Your task to perform on an android device: Open the stopwatch Image 0: 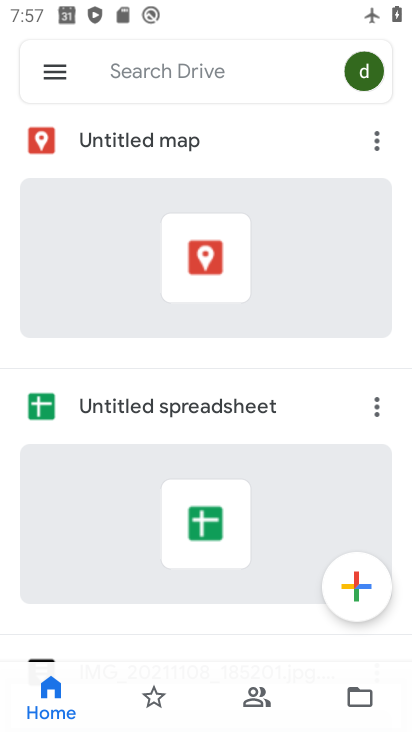
Step 0: press back button
Your task to perform on an android device: Open the stopwatch Image 1: 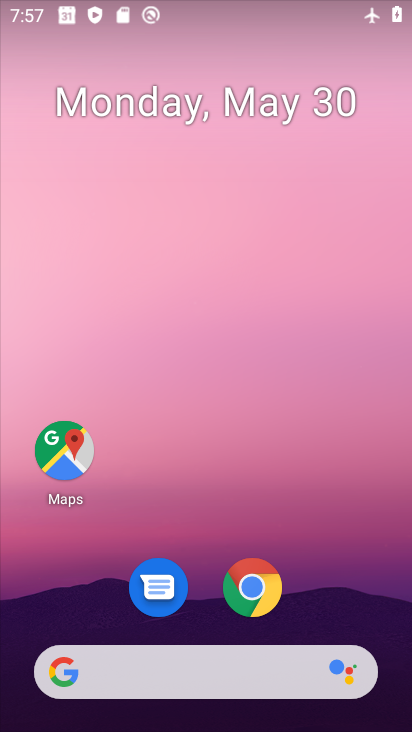
Step 1: drag from (325, 520) to (237, 10)
Your task to perform on an android device: Open the stopwatch Image 2: 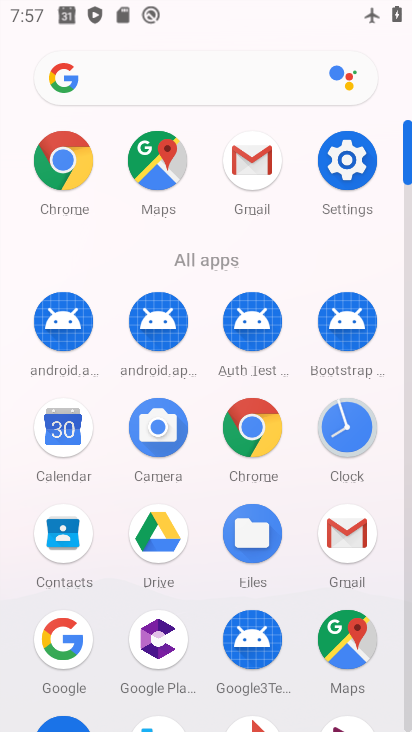
Step 2: click (349, 424)
Your task to perform on an android device: Open the stopwatch Image 3: 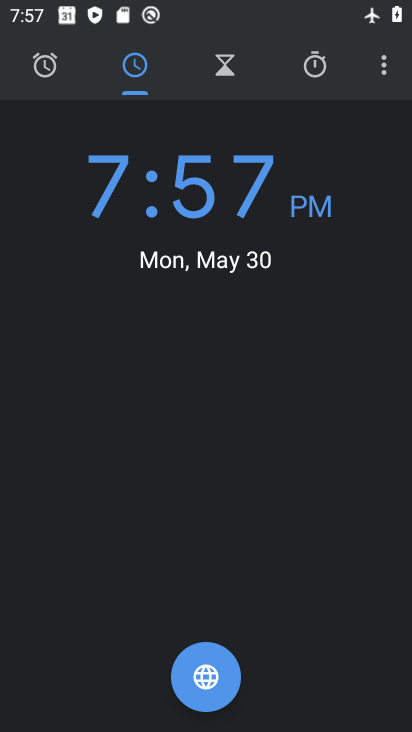
Step 3: click (315, 56)
Your task to perform on an android device: Open the stopwatch Image 4: 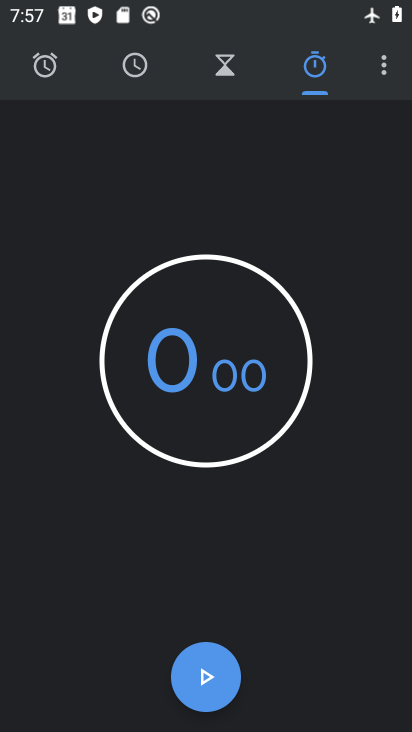
Step 4: click (204, 662)
Your task to perform on an android device: Open the stopwatch Image 5: 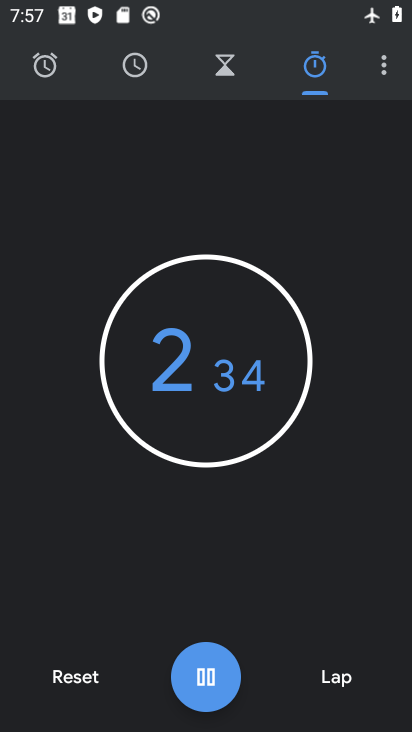
Step 5: task complete